Your task to perform on an android device: Go to accessibility settings Image 0: 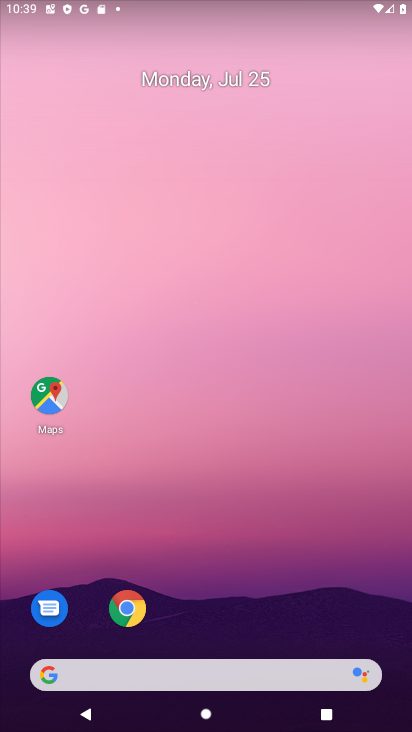
Step 0: drag from (220, 282) to (222, 132)
Your task to perform on an android device: Go to accessibility settings Image 1: 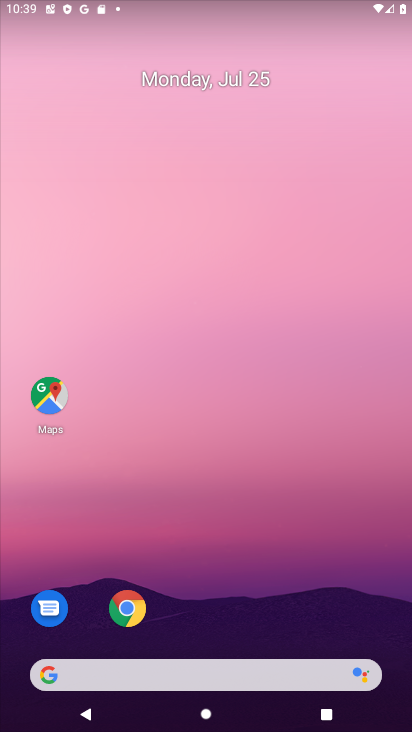
Step 1: drag from (258, 644) to (251, 3)
Your task to perform on an android device: Go to accessibility settings Image 2: 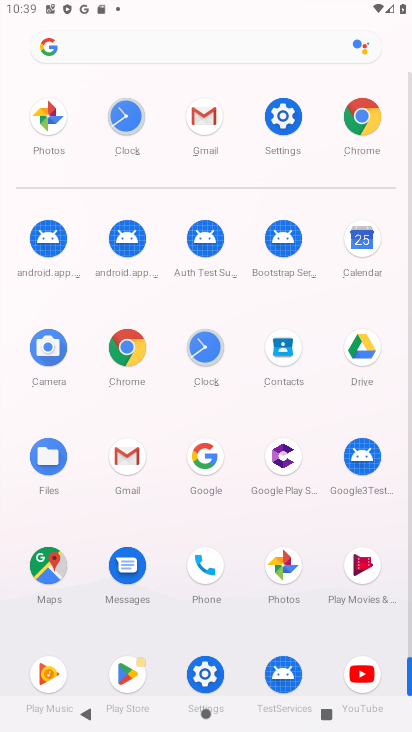
Step 2: click (287, 141)
Your task to perform on an android device: Go to accessibility settings Image 3: 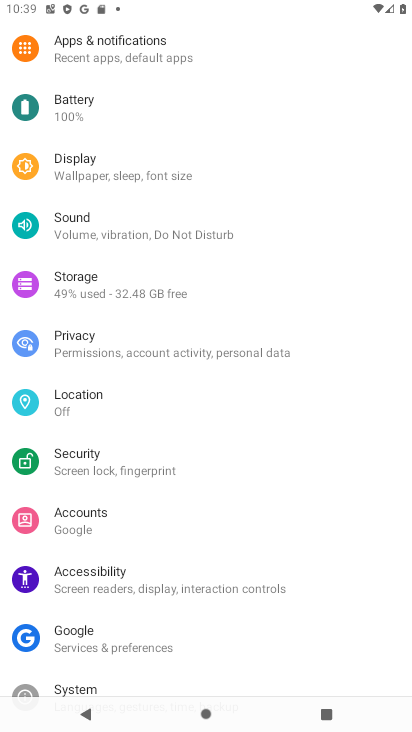
Step 3: click (147, 580)
Your task to perform on an android device: Go to accessibility settings Image 4: 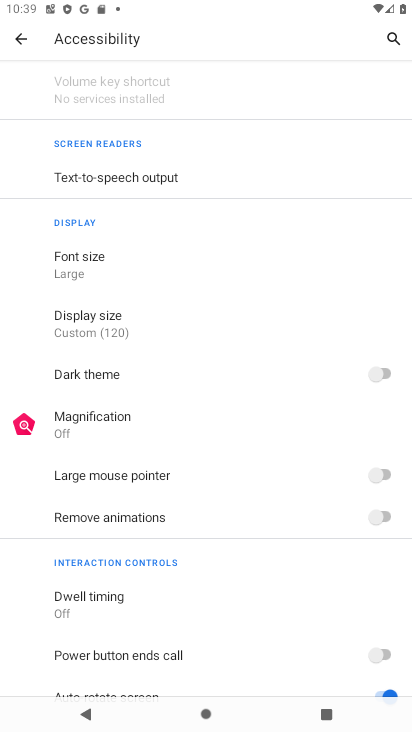
Step 4: task complete